Your task to perform on an android device: turn notification dots on Image 0: 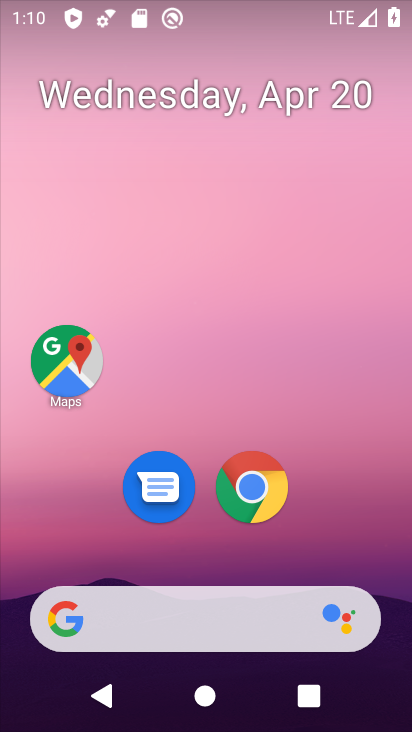
Step 0: drag from (330, 528) to (191, 33)
Your task to perform on an android device: turn notification dots on Image 1: 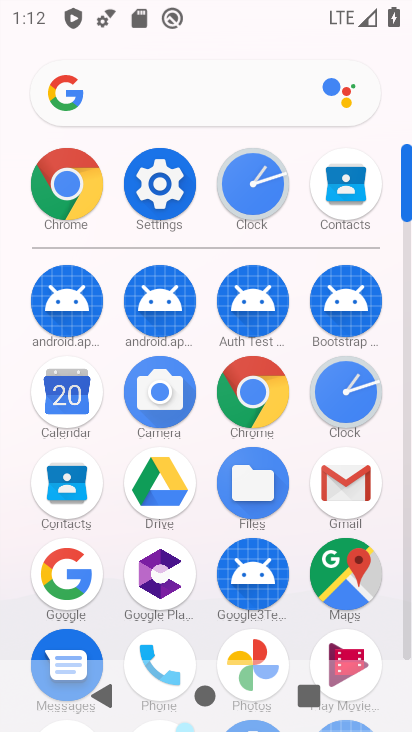
Step 1: click (159, 181)
Your task to perform on an android device: turn notification dots on Image 2: 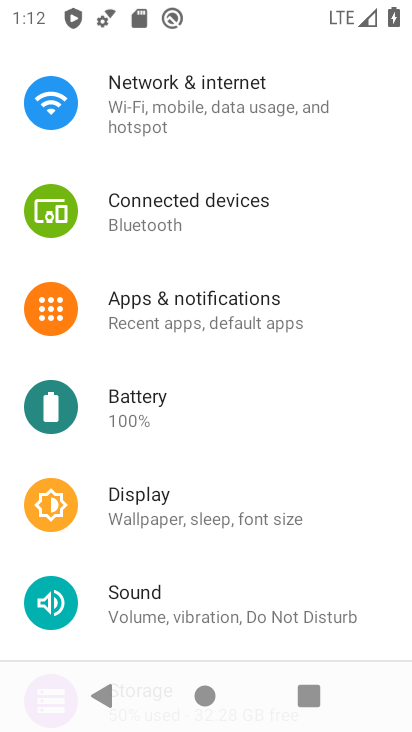
Step 2: click (261, 307)
Your task to perform on an android device: turn notification dots on Image 3: 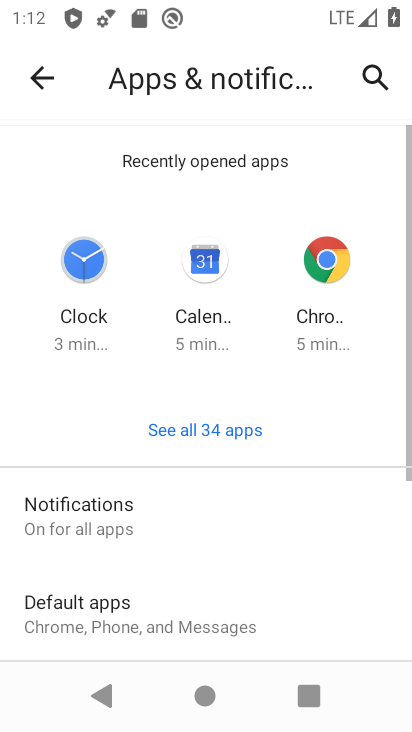
Step 3: click (226, 495)
Your task to perform on an android device: turn notification dots on Image 4: 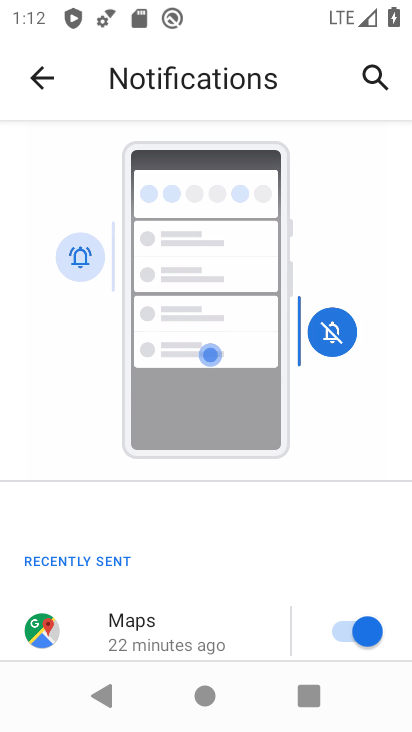
Step 4: drag from (170, 621) to (233, 53)
Your task to perform on an android device: turn notification dots on Image 5: 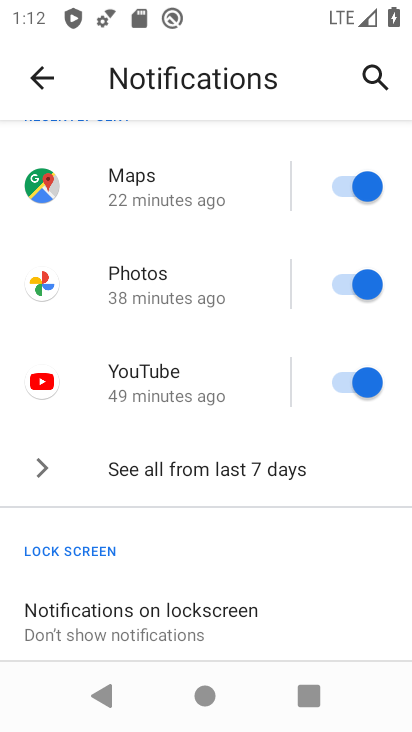
Step 5: drag from (184, 609) to (212, 106)
Your task to perform on an android device: turn notification dots on Image 6: 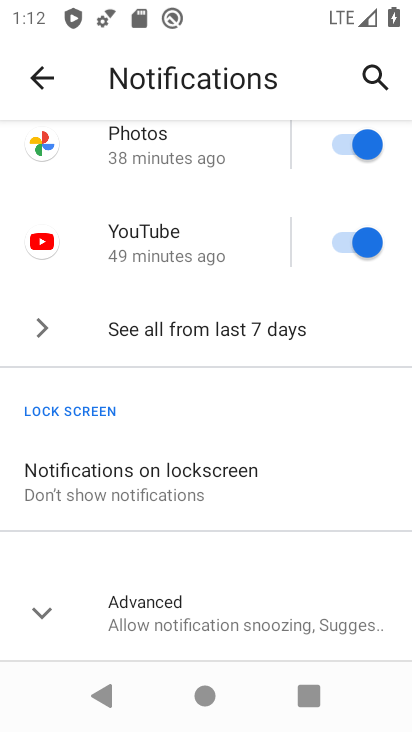
Step 6: click (176, 600)
Your task to perform on an android device: turn notification dots on Image 7: 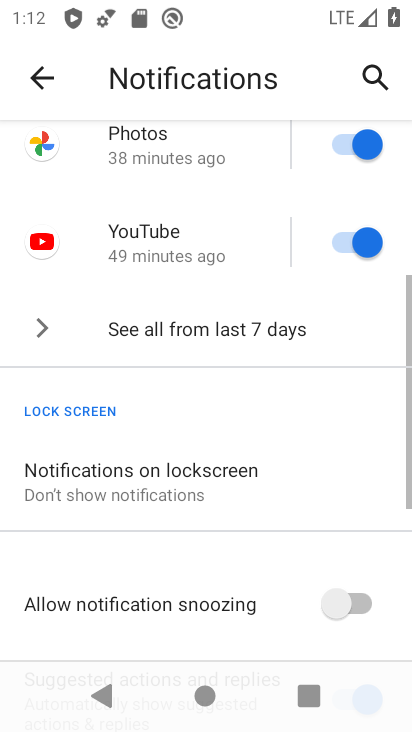
Step 7: task complete